Your task to perform on an android device: turn notification dots on Image 0: 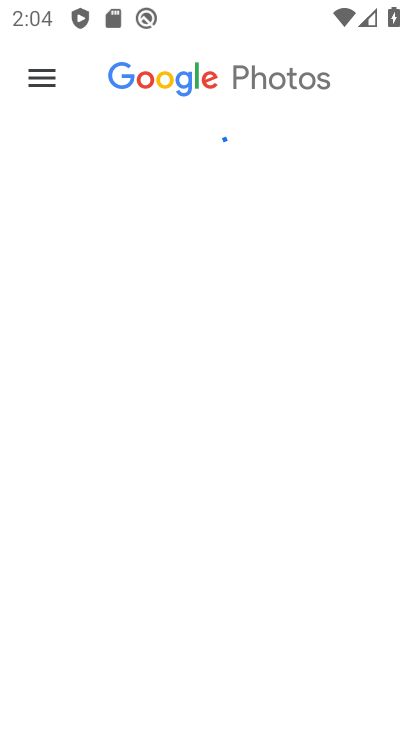
Step 0: press home button
Your task to perform on an android device: turn notification dots on Image 1: 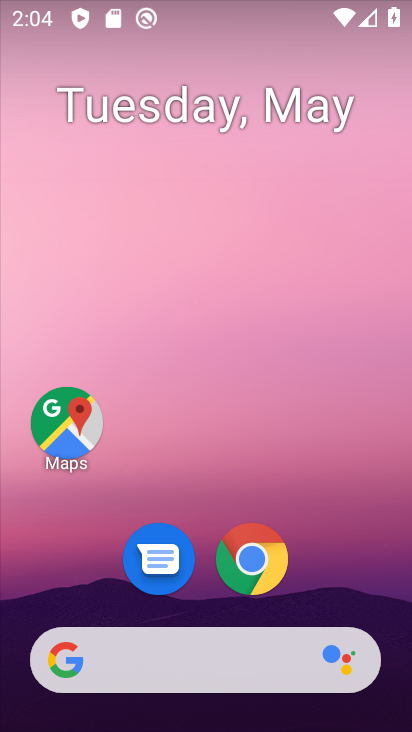
Step 1: drag from (190, 660) to (320, 125)
Your task to perform on an android device: turn notification dots on Image 2: 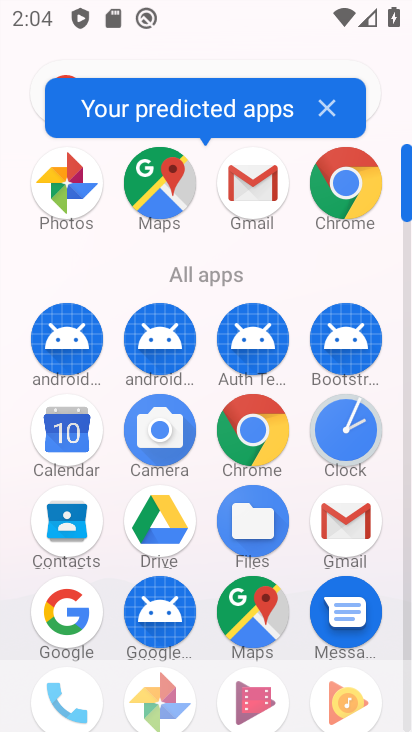
Step 2: drag from (219, 570) to (306, 254)
Your task to perform on an android device: turn notification dots on Image 3: 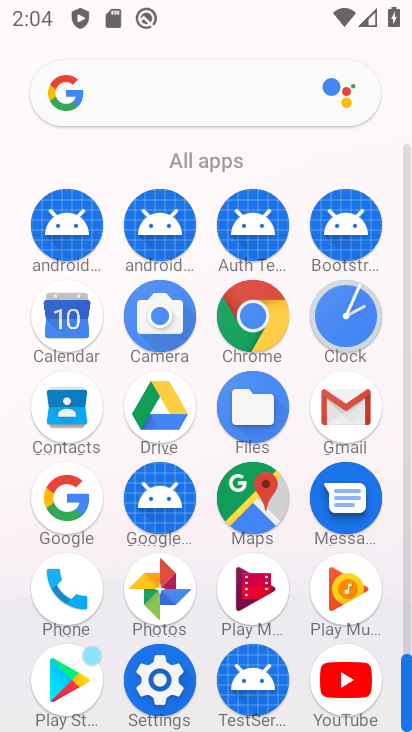
Step 3: click (171, 679)
Your task to perform on an android device: turn notification dots on Image 4: 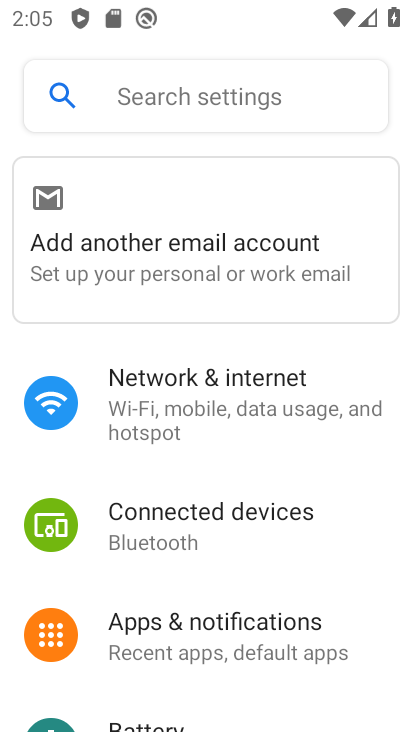
Step 4: click (256, 624)
Your task to perform on an android device: turn notification dots on Image 5: 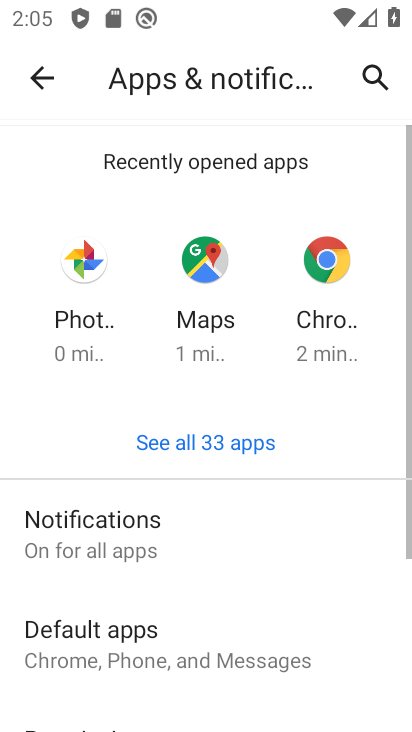
Step 5: click (137, 544)
Your task to perform on an android device: turn notification dots on Image 6: 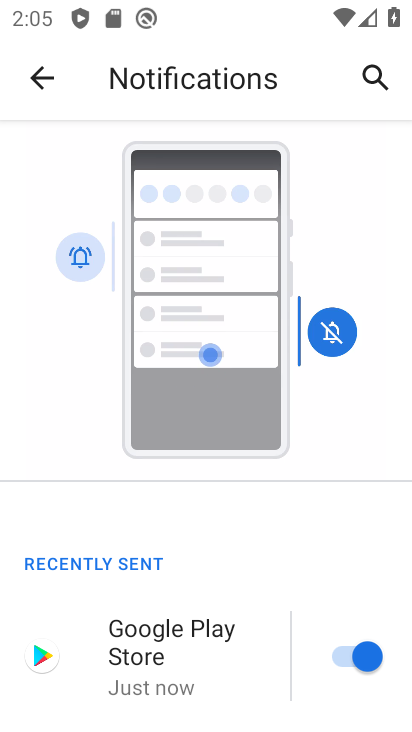
Step 6: drag from (240, 667) to (341, 170)
Your task to perform on an android device: turn notification dots on Image 7: 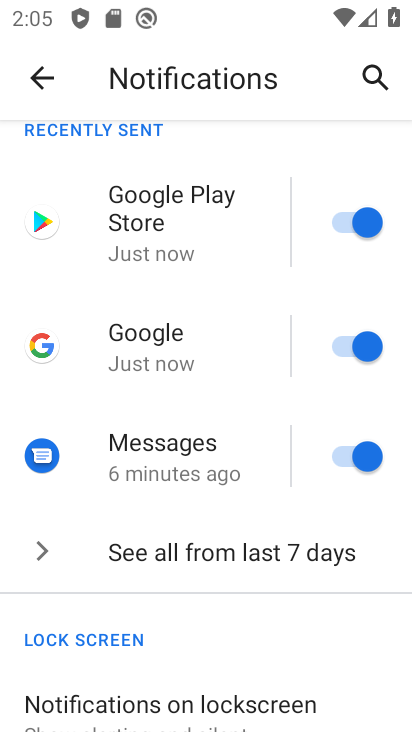
Step 7: drag from (195, 636) to (329, 195)
Your task to perform on an android device: turn notification dots on Image 8: 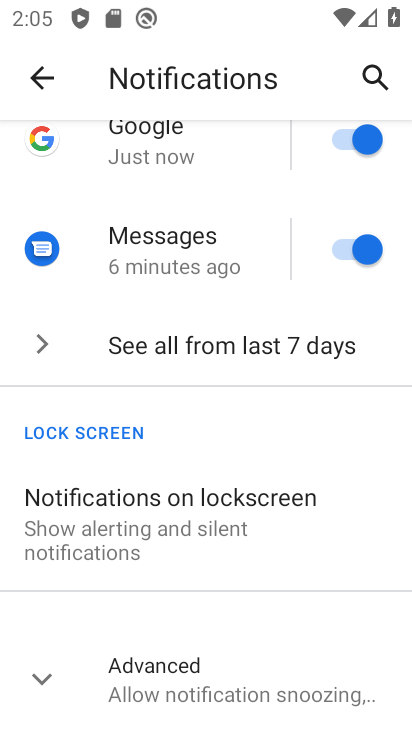
Step 8: click (151, 678)
Your task to perform on an android device: turn notification dots on Image 9: 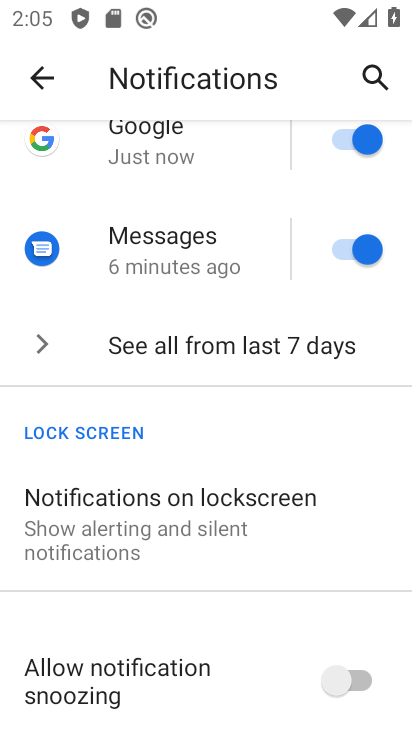
Step 9: task complete